Your task to perform on an android device: Play the last video I watched on Youtube Image 0: 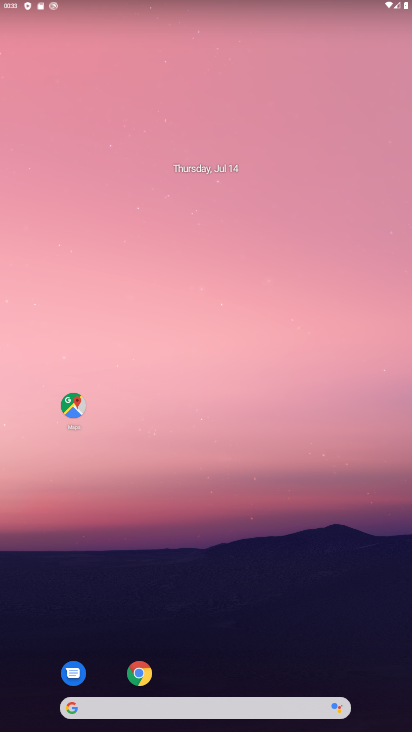
Step 0: drag from (253, 664) to (232, 232)
Your task to perform on an android device: Play the last video I watched on Youtube Image 1: 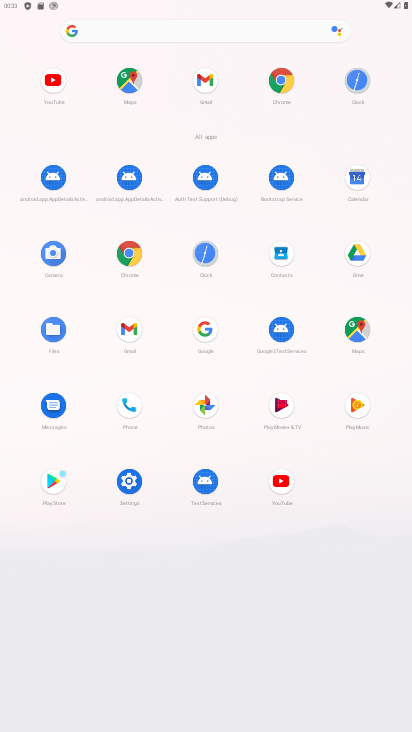
Step 1: click (288, 490)
Your task to perform on an android device: Play the last video I watched on Youtube Image 2: 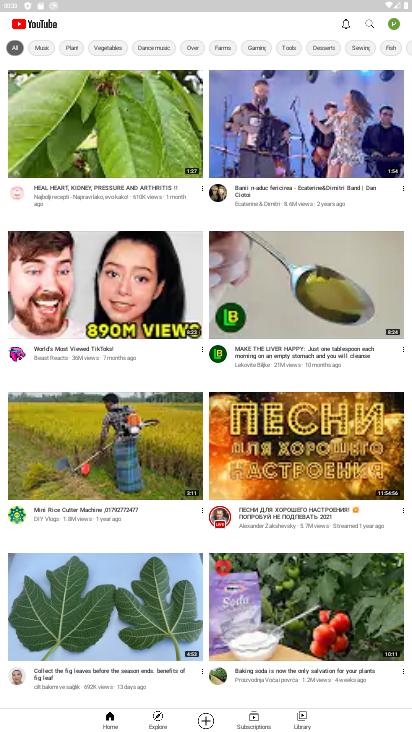
Step 2: click (293, 716)
Your task to perform on an android device: Play the last video I watched on Youtube Image 3: 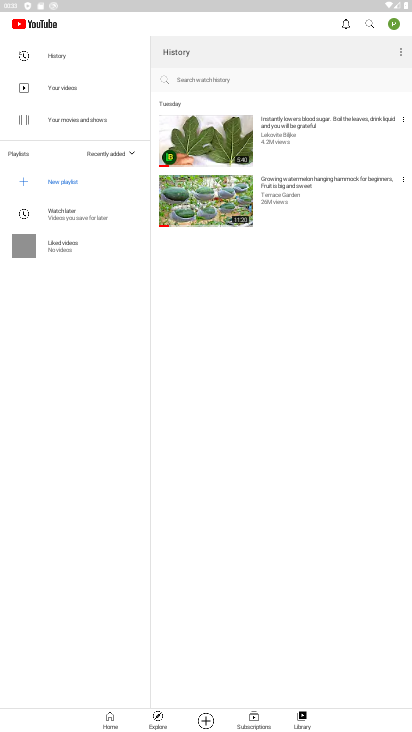
Step 3: click (201, 138)
Your task to perform on an android device: Play the last video I watched on Youtube Image 4: 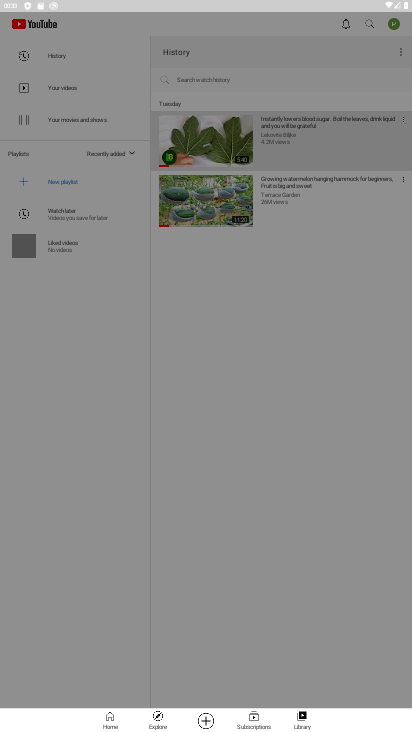
Step 4: task complete